Your task to perform on an android device: Go to Amazon Image 0: 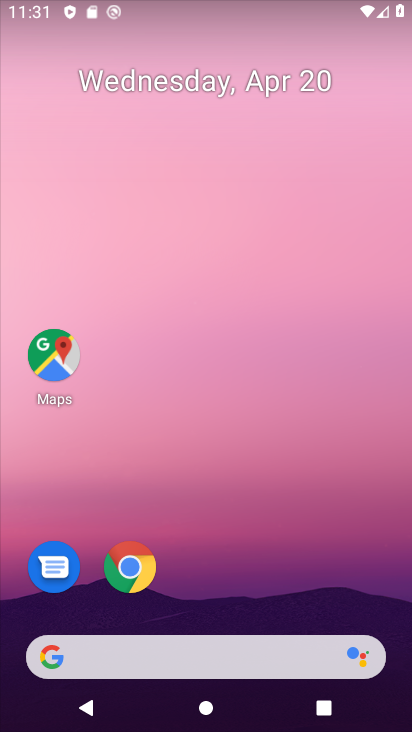
Step 0: click (129, 573)
Your task to perform on an android device: Go to Amazon Image 1: 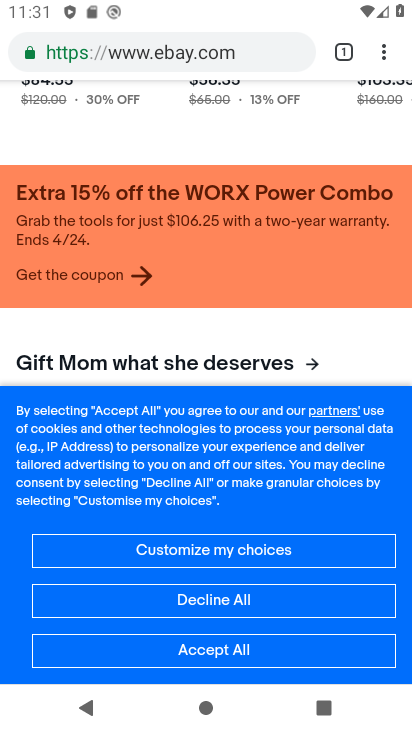
Step 1: click (352, 48)
Your task to perform on an android device: Go to Amazon Image 2: 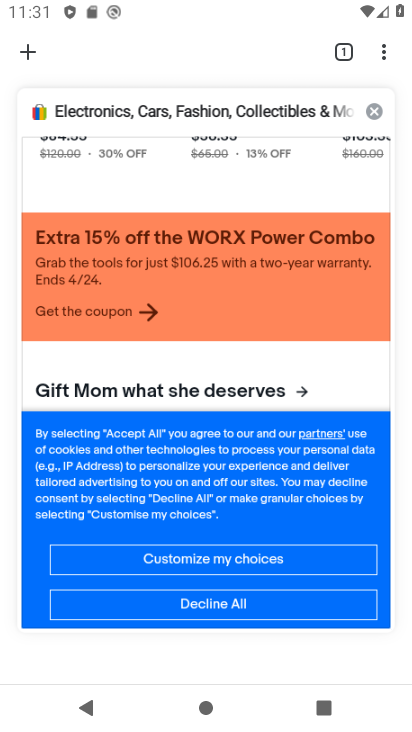
Step 2: click (24, 51)
Your task to perform on an android device: Go to Amazon Image 3: 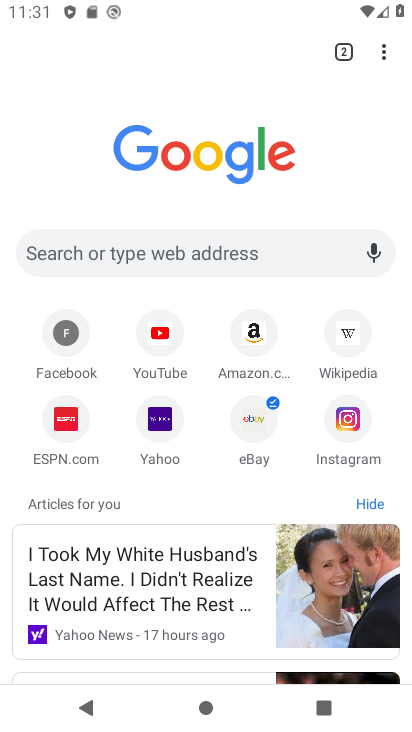
Step 3: click (256, 336)
Your task to perform on an android device: Go to Amazon Image 4: 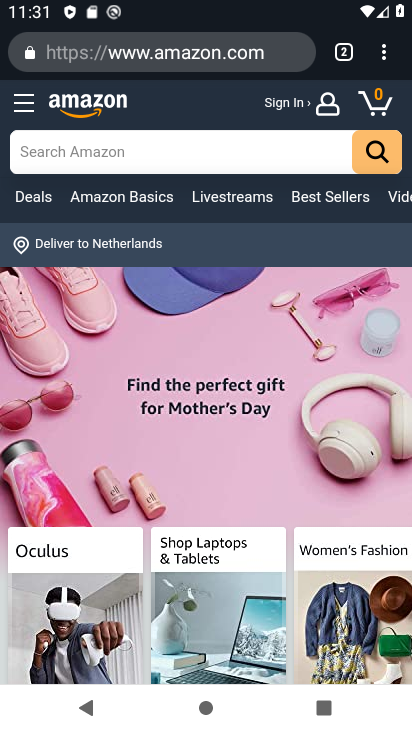
Step 4: task complete